Your task to perform on an android device: change keyboard looks Image 0: 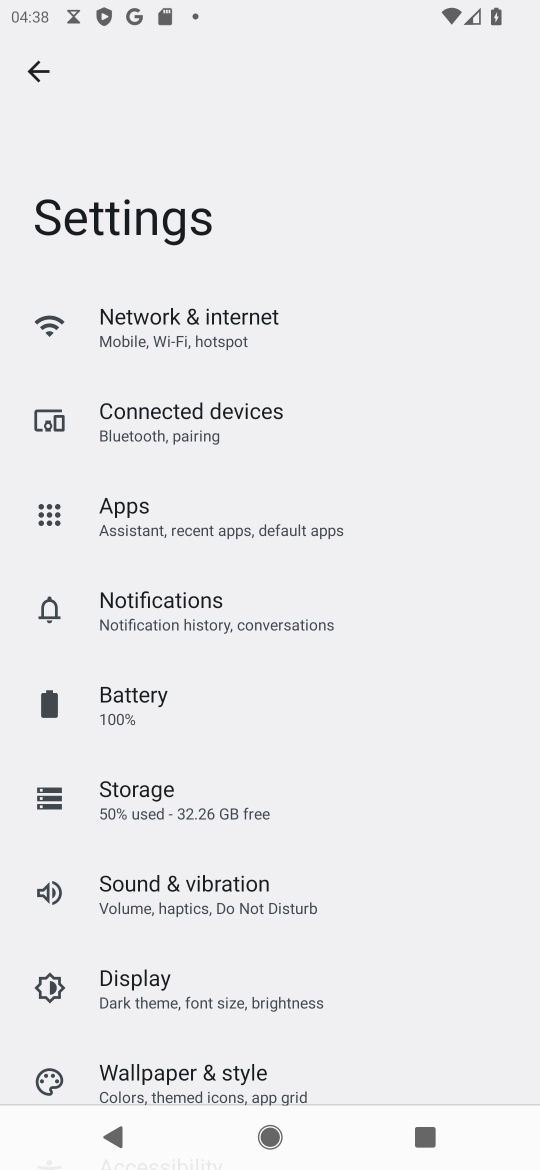
Step 0: drag from (253, 964) to (349, 108)
Your task to perform on an android device: change keyboard looks Image 1: 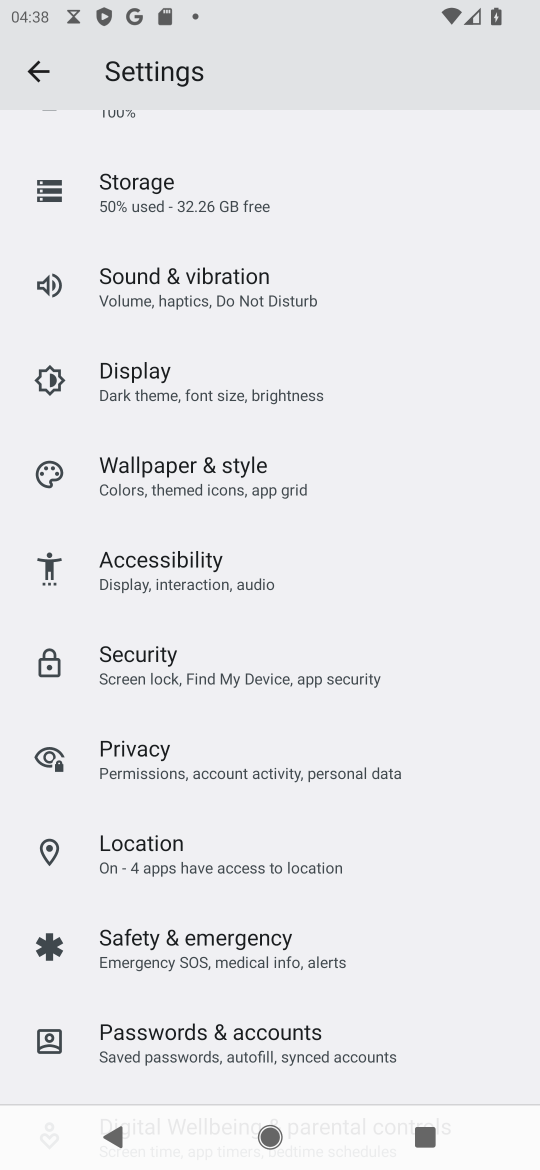
Step 1: drag from (266, 983) to (380, 194)
Your task to perform on an android device: change keyboard looks Image 2: 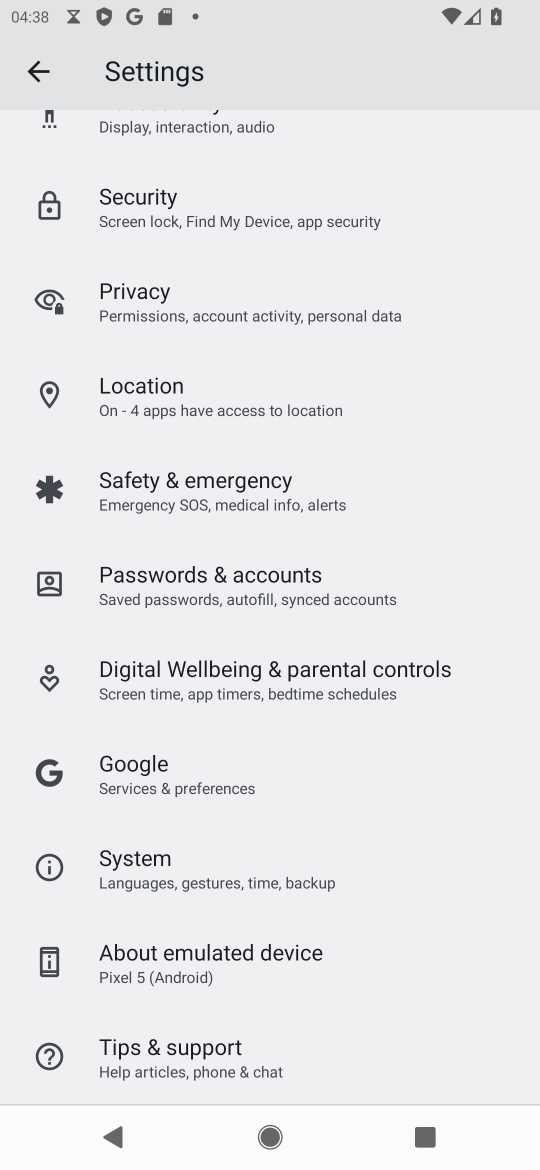
Step 2: click (191, 867)
Your task to perform on an android device: change keyboard looks Image 3: 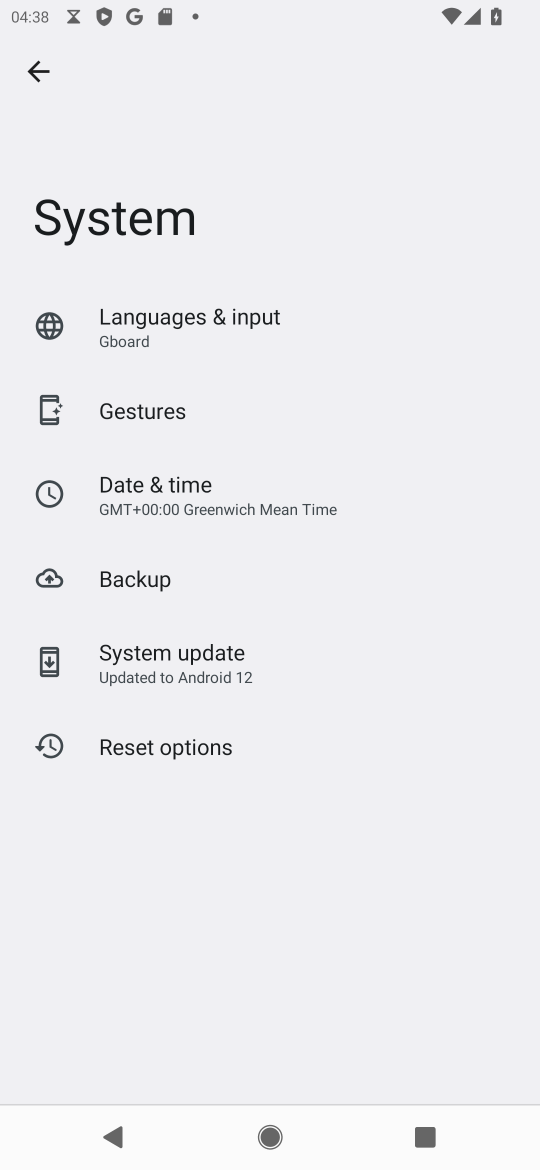
Step 3: click (139, 402)
Your task to perform on an android device: change keyboard looks Image 4: 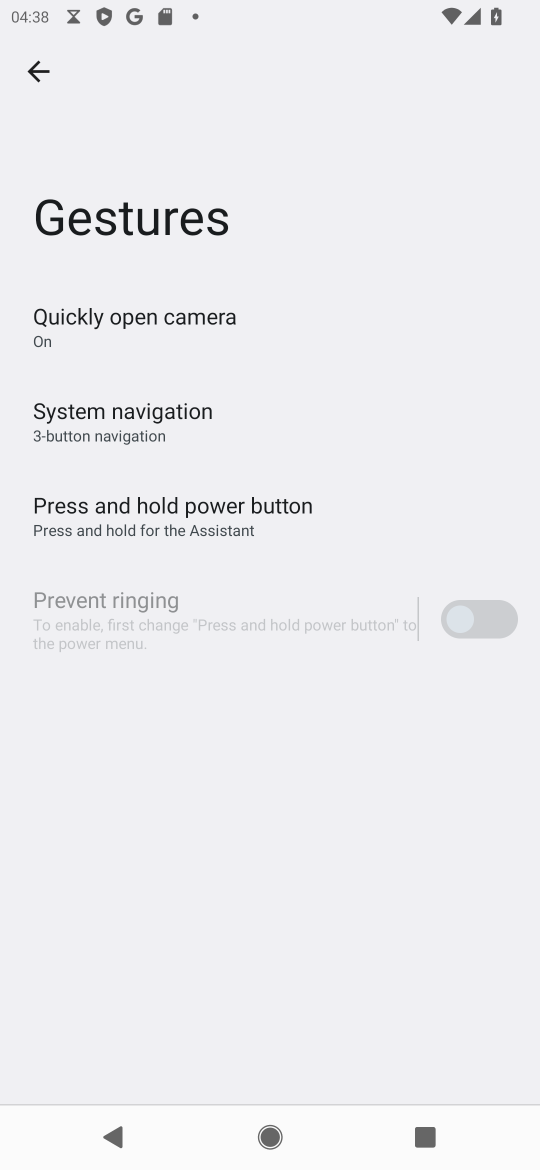
Step 4: click (38, 63)
Your task to perform on an android device: change keyboard looks Image 5: 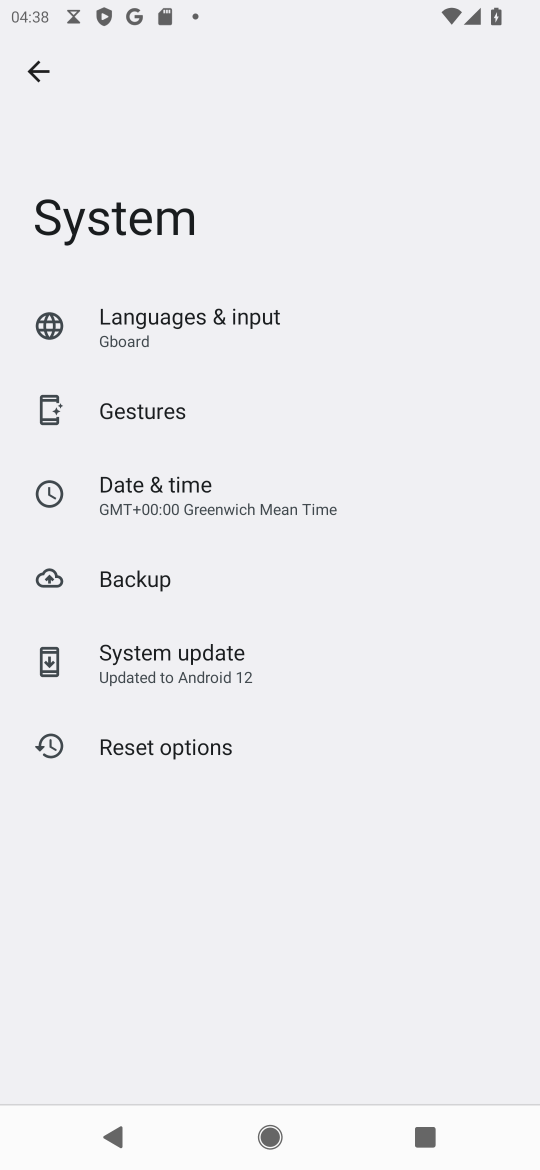
Step 5: click (174, 323)
Your task to perform on an android device: change keyboard looks Image 6: 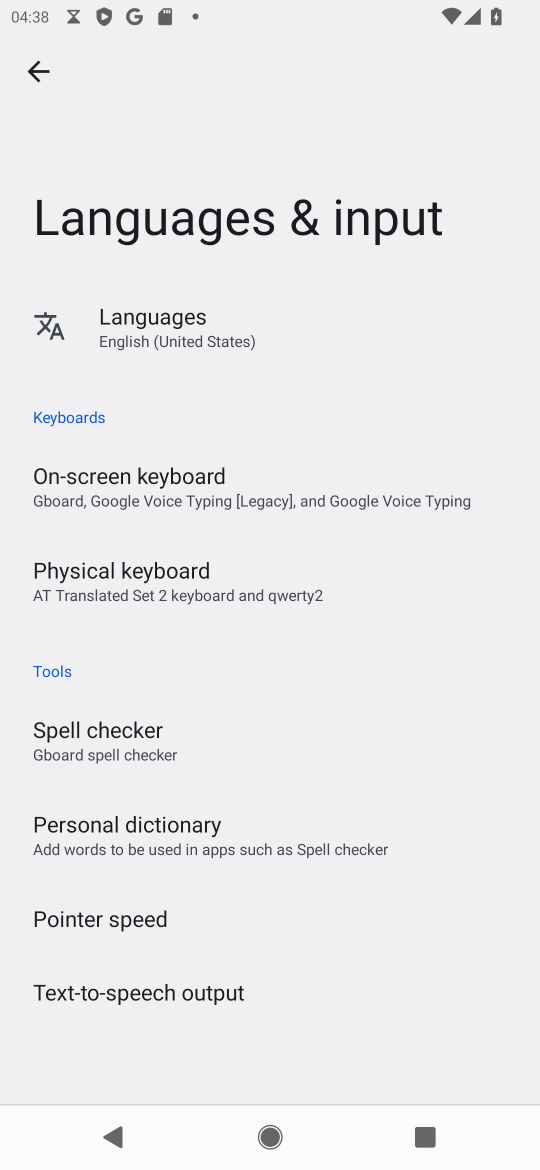
Step 6: click (264, 501)
Your task to perform on an android device: change keyboard looks Image 7: 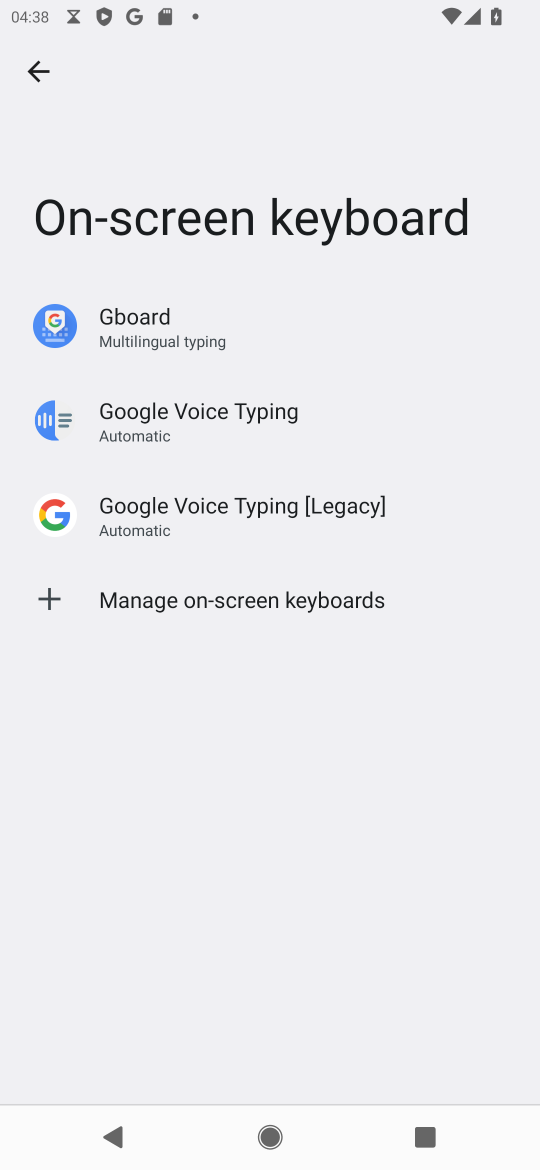
Step 7: click (165, 329)
Your task to perform on an android device: change keyboard looks Image 8: 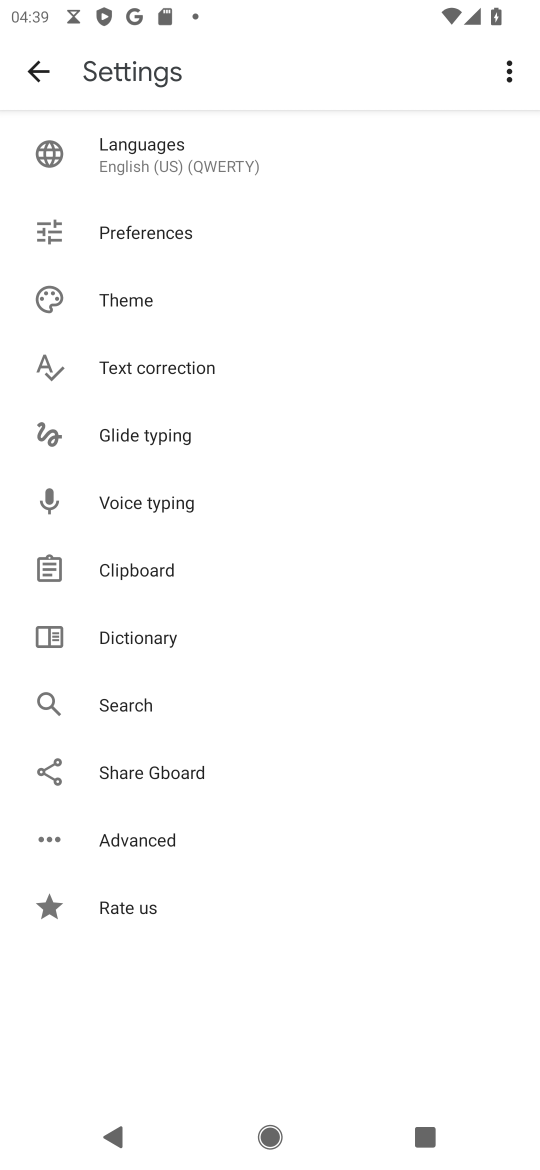
Step 8: click (127, 305)
Your task to perform on an android device: change keyboard looks Image 9: 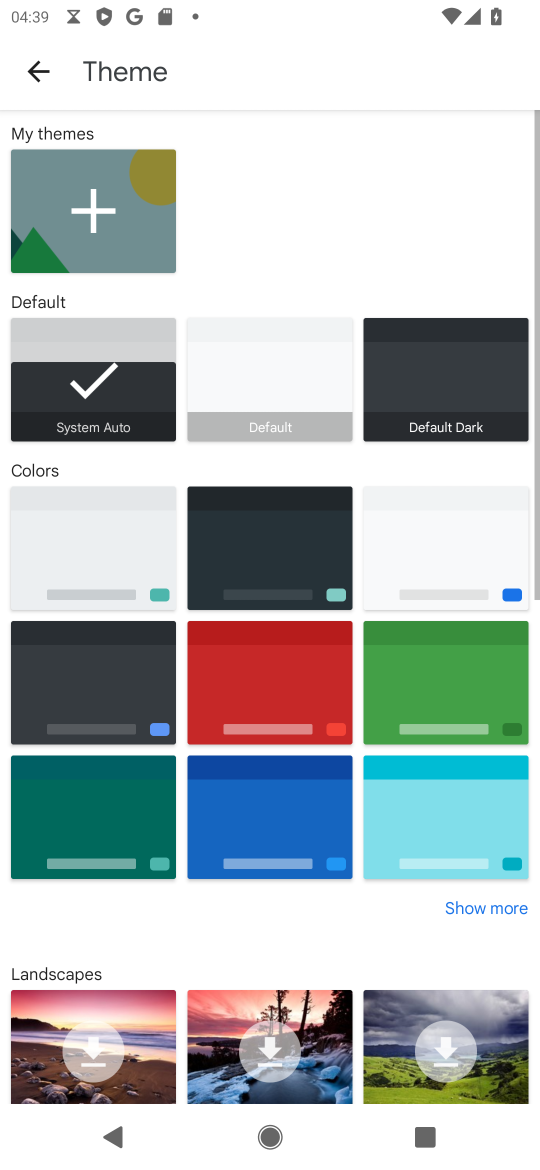
Step 9: click (427, 823)
Your task to perform on an android device: change keyboard looks Image 10: 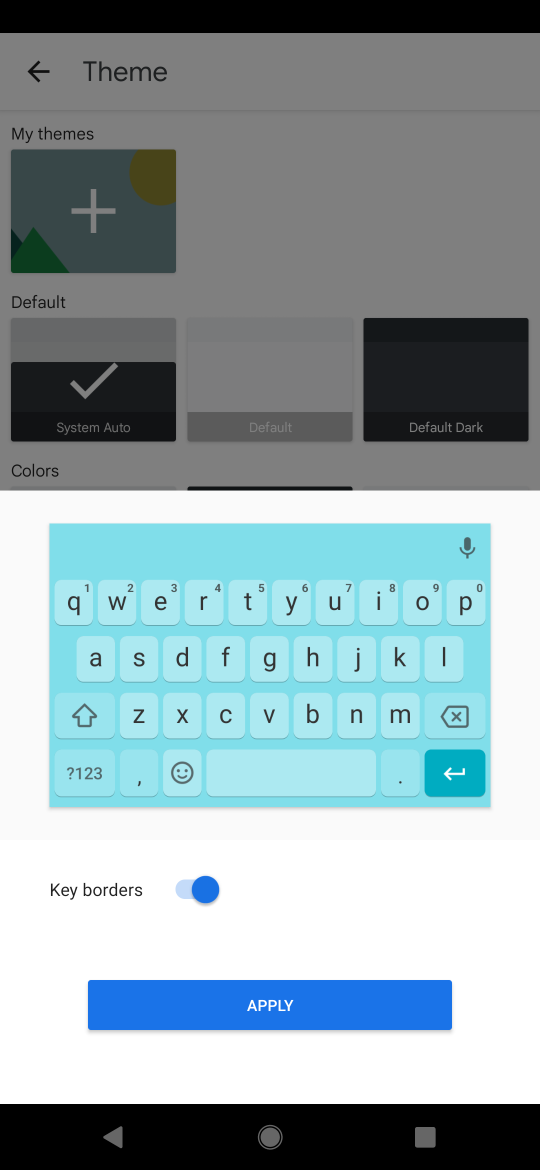
Step 10: click (275, 1004)
Your task to perform on an android device: change keyboard looks Image 11: 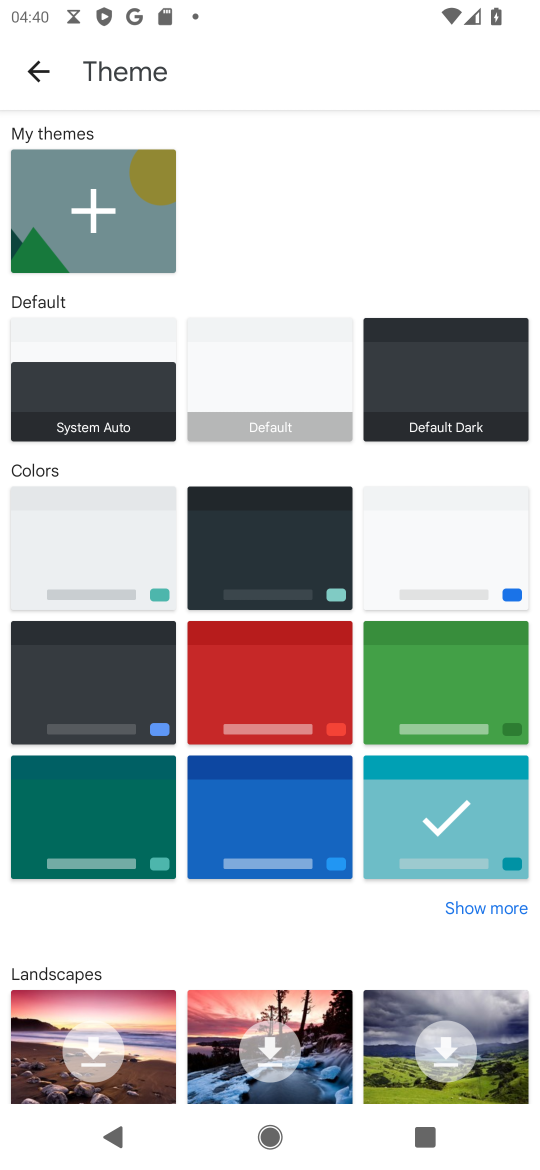
Step 11: task complete